Your task to perform on an android device: Go to eBay Image 0: 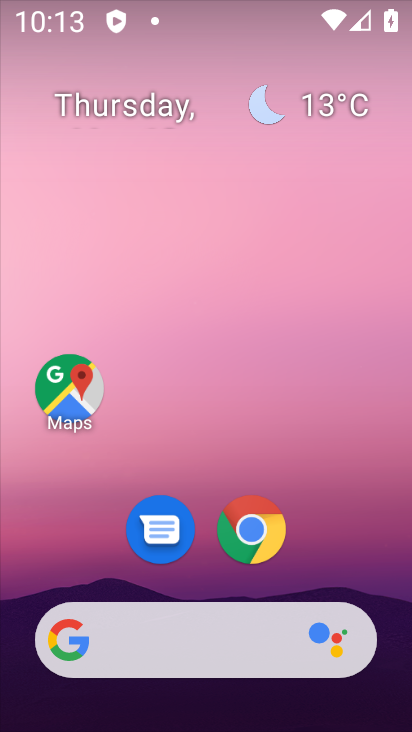
Step 0: click (250, 529)
Your task to perform on an android device: Go to eBay Image 1: 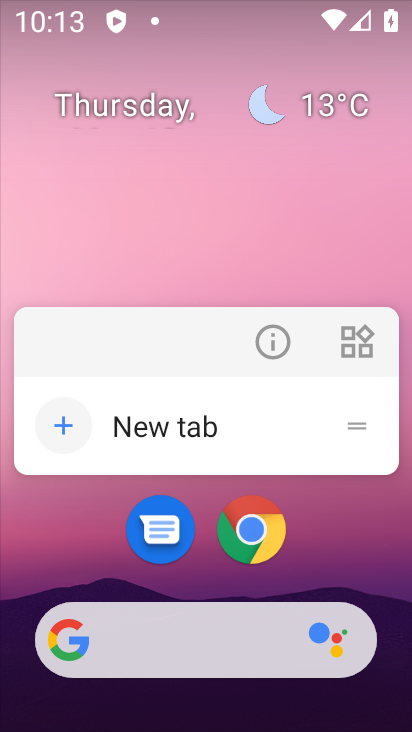
Step 1: click (250, 529)
Your task to perform on an android device: Go to eBay Image 2: 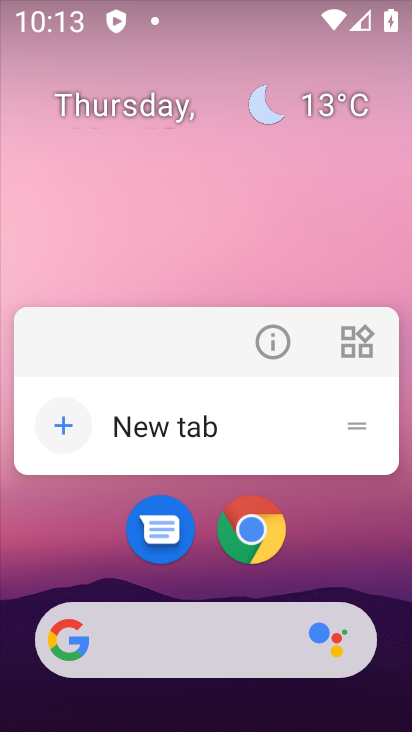
Step 2: click (244, 536)
Your task to perform on an android device: Go to eBay Image 3: 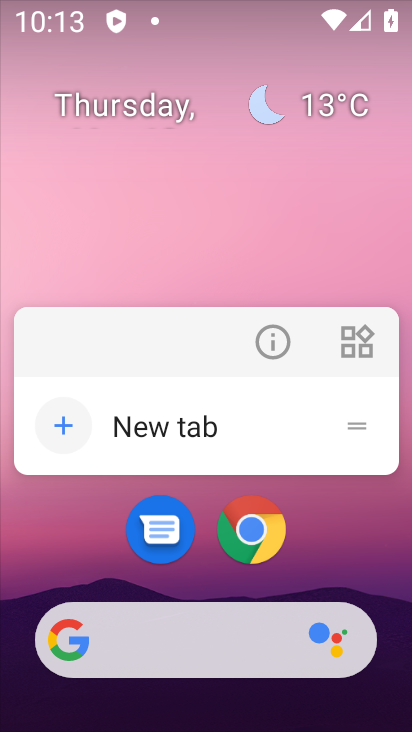
Step 3: click (244, 536)
Your task to perform on an android device: Go to eBay Image 4: 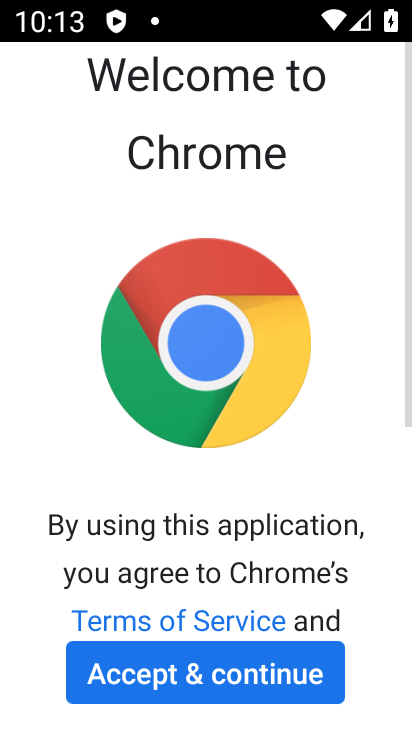
Step 4: click (223, 675)
Your task to perform on an android device: Go to eBay Image 5: 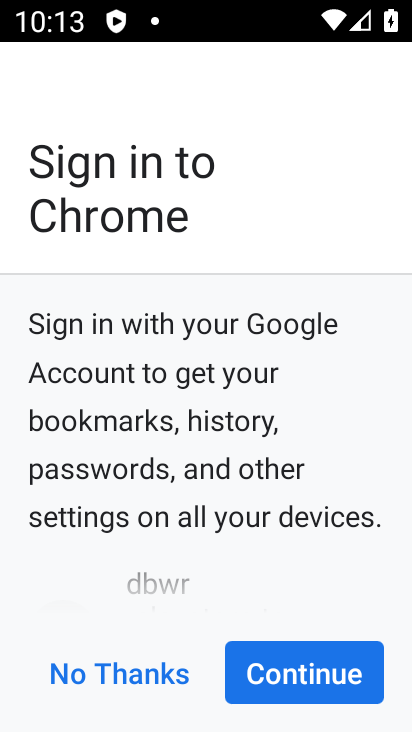
Step 5: click (223, 675)
Your task to perform on an android device: Go to eBay Image 6: 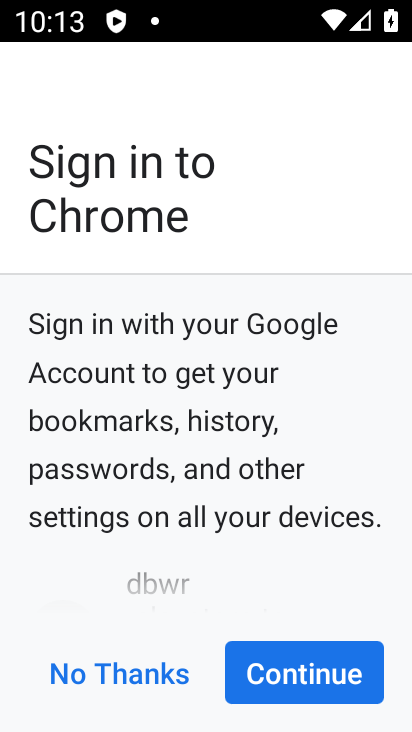
Step 6: click (260, 671)
Your task to perform on an android device: Go to eBay Image 7: 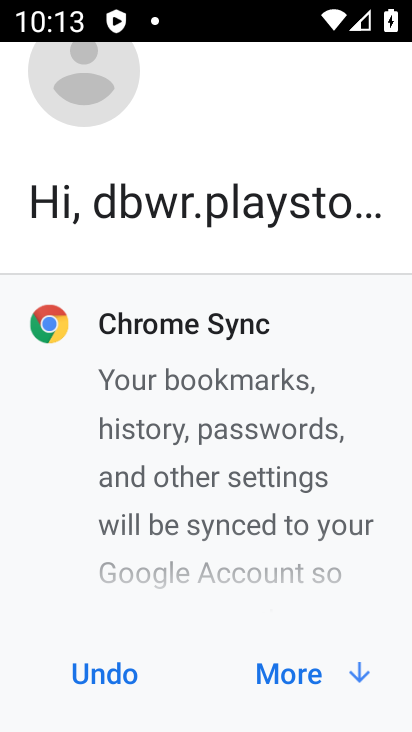
Step 7: click (260, 671)
Your task to perform on an android device: Go to eBay Image 8: 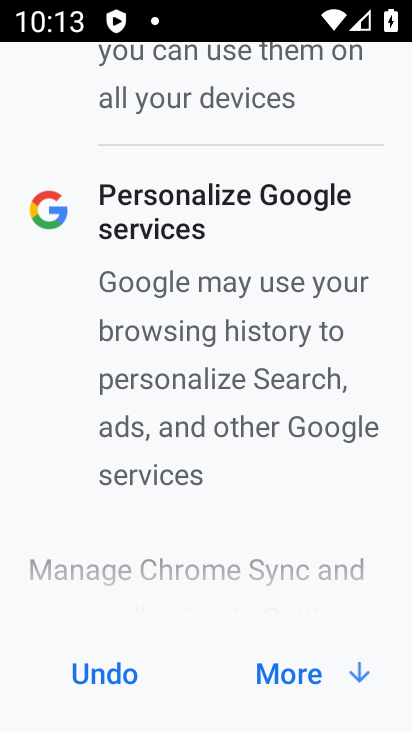
Step 8: click (272, 669)
Your task to perform on an android device: Go to eBay Image 9: 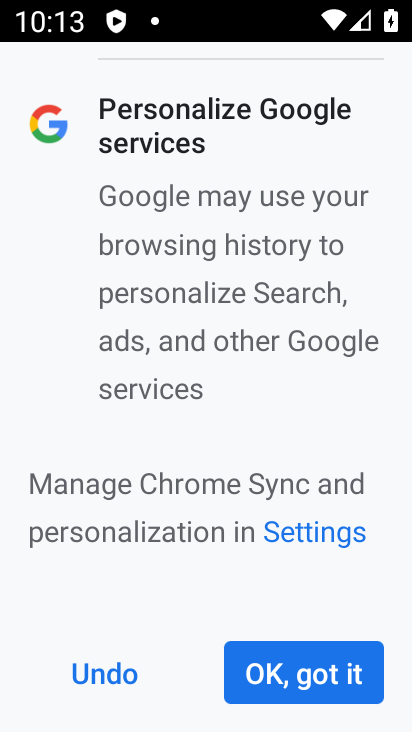
Step 9: click (272, 669)
Your task to perform on an android device: Go to eBay Image 10: 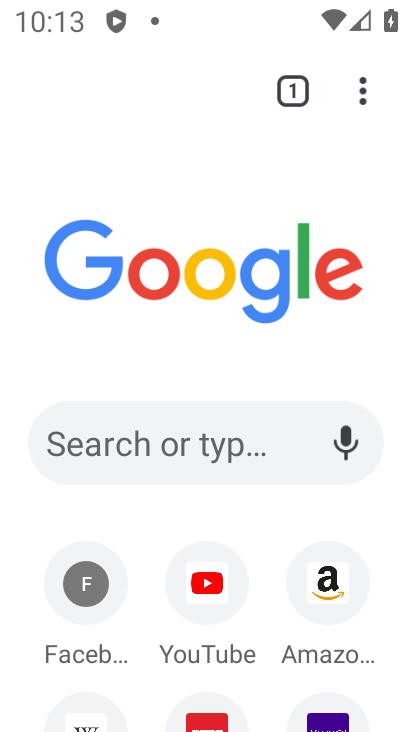
Step 10: click (152, 451)
Your task to perform on an android device: Go to eBay Image 11: 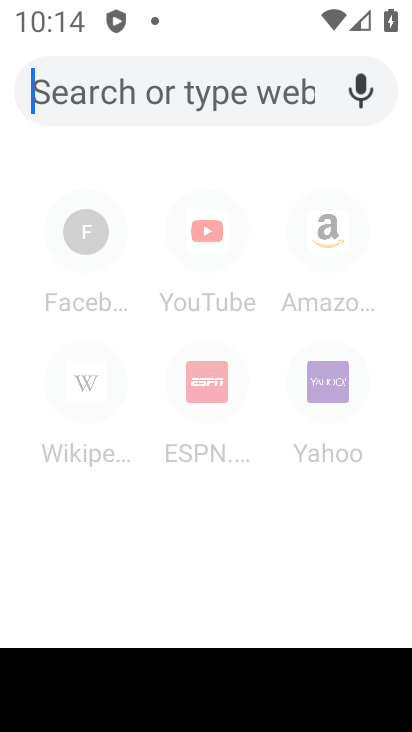
Step 11: type "ebay"
Your task to perform on an android device: Go to eBay Image 12: 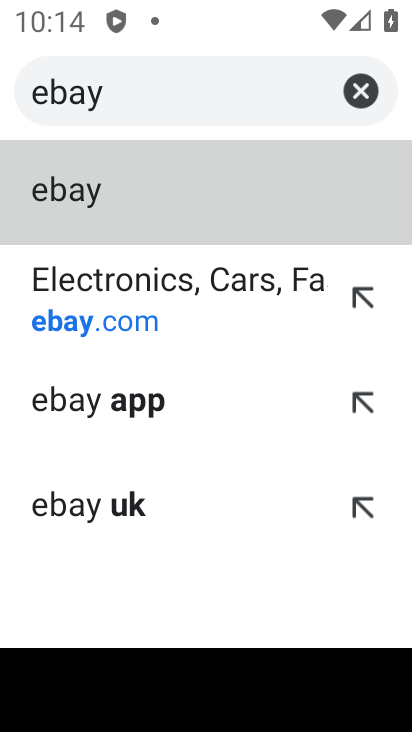
Step 12: click (126, 185)
Your task to perform on an android device: Go to eBay Image 13: 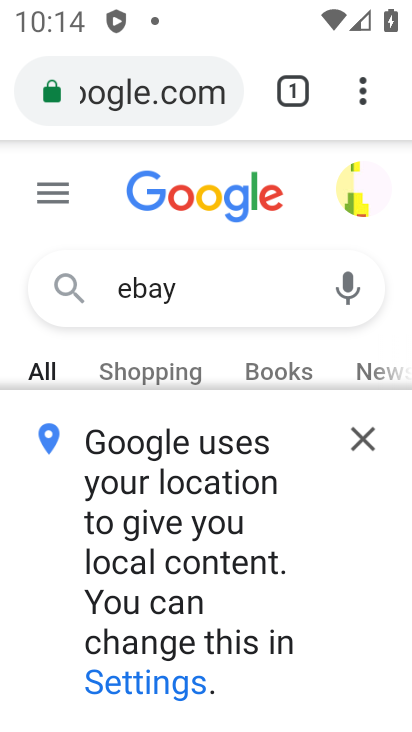
Step 13: click (367, 435)
Your task to perform on an android device: Go to eBay Image 14: 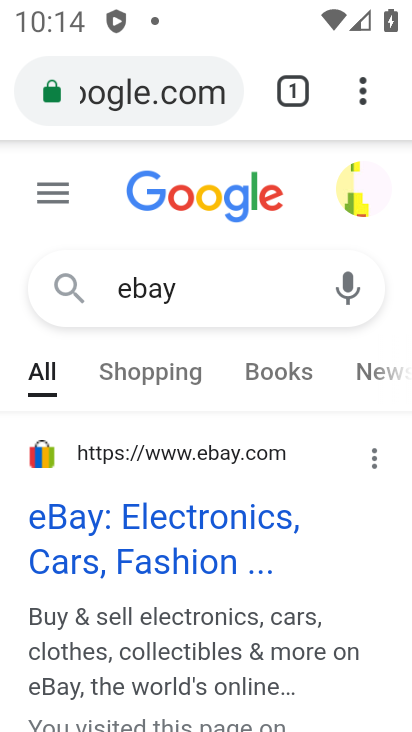
Step 14: click (110, 527)
Your task to perform on an android device: Go to eBay Image 15: 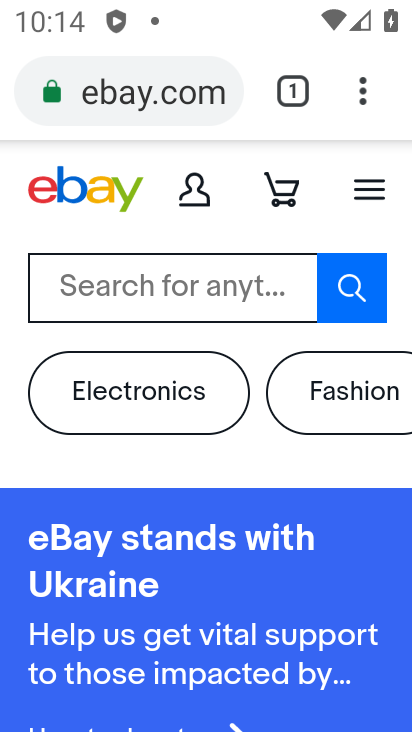
Step 15: task complete